Your task to perform on an android device: Turn on the flashlight Image 0: 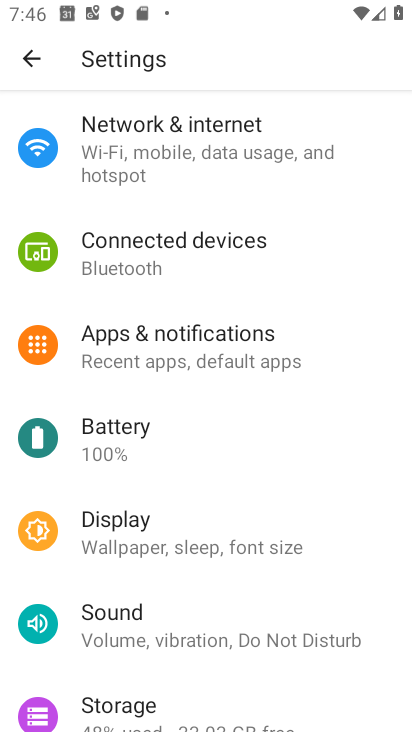
Step 0: click (30, 57)
Your task to perform on an android device: Turn on the flashlight Image 1: 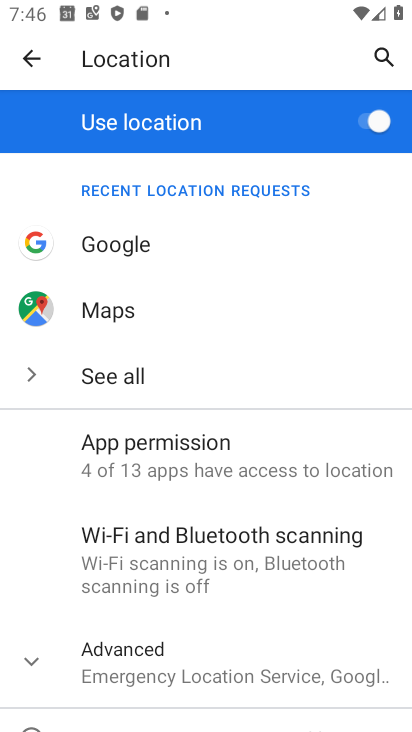
Step 1: press home button
Your task to perform on an android device: Turn on the flashlight Image 2: 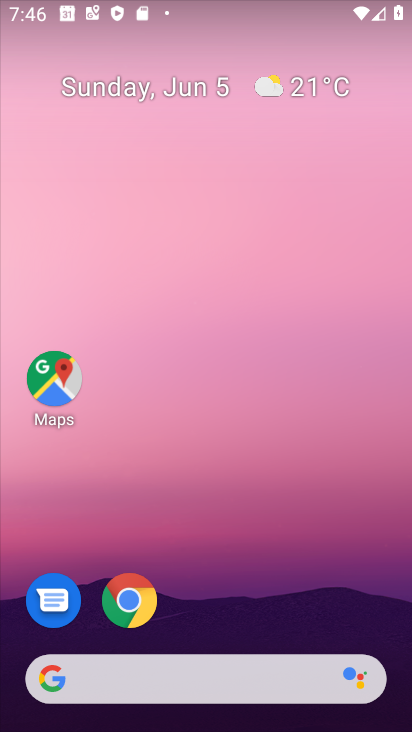
Step 2: drag from (236, 547) to (233, 13)
Your task to perform on an android device: Turn on the flashlight Image 3: 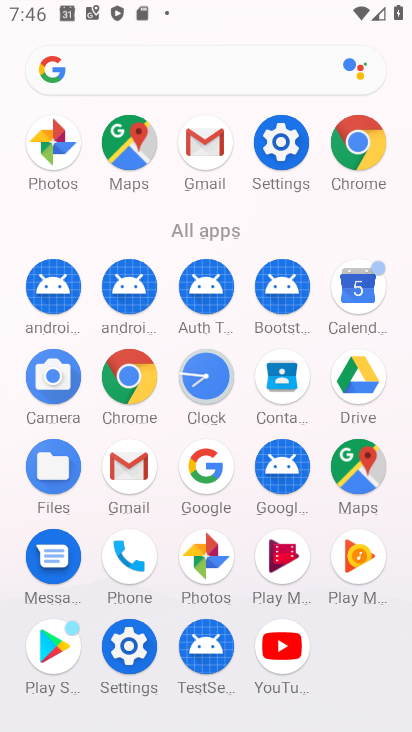
Step 3: click (285, 135)
Your task to perform on an android device: Turn on the flashlight Image 4: 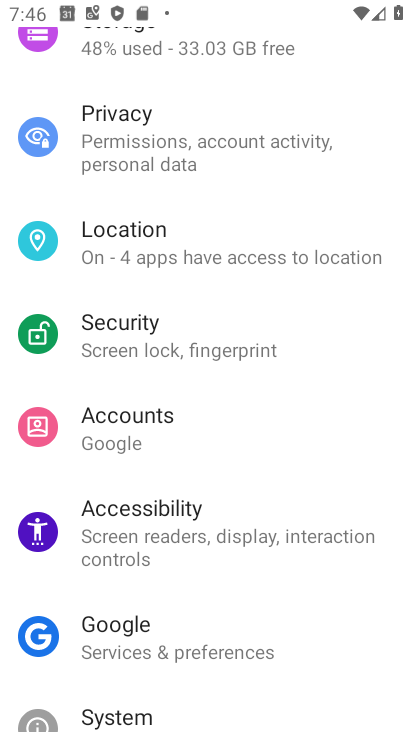
Step 4: drag from (262, 262) to (238, 567)
Your task to perform on an android device: Turn on the flashlight Image 5: 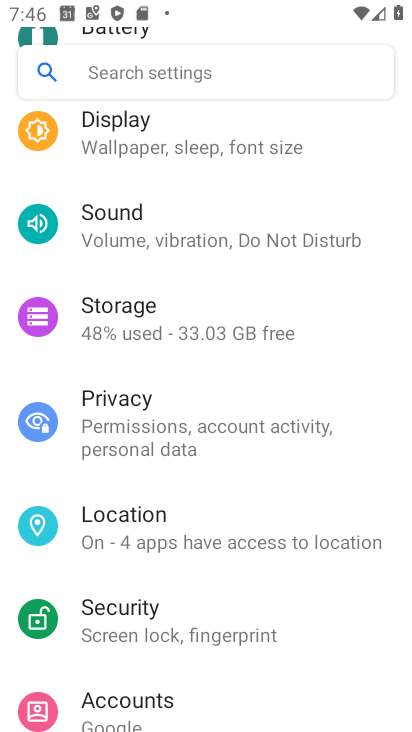
Step 5: drag from (238, 172) to (204, 581)
Your task to perform on an android device: Turn on the flashlight Image 6: 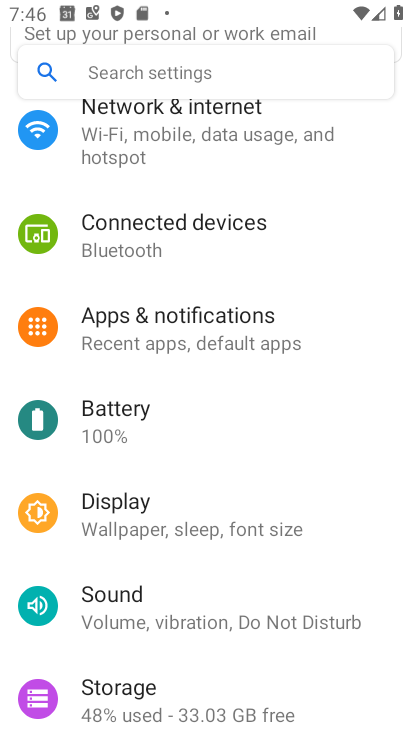
Step 6: drag from (210, 180) to (177, 623)
Your task to perform on an android device: Turn on the flashlight Image 7: 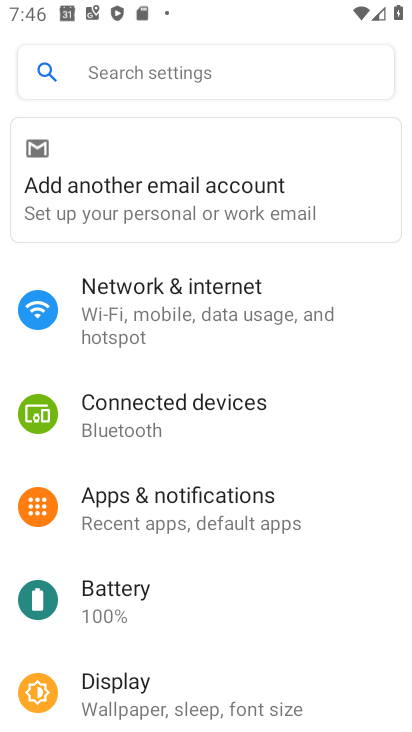
Step 7: click (245, 63)
Your task to perform on an android device: Turn on the flashlight Image 8: 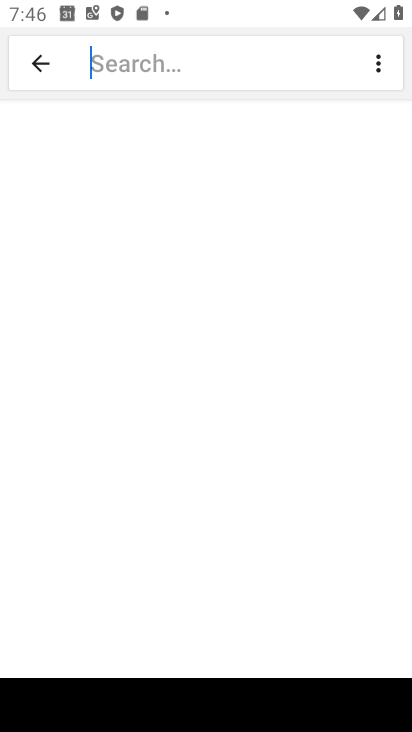
Step 8: type "Flashlight"
Your task to perform on an android device: Turn on the flashlight Image 9: 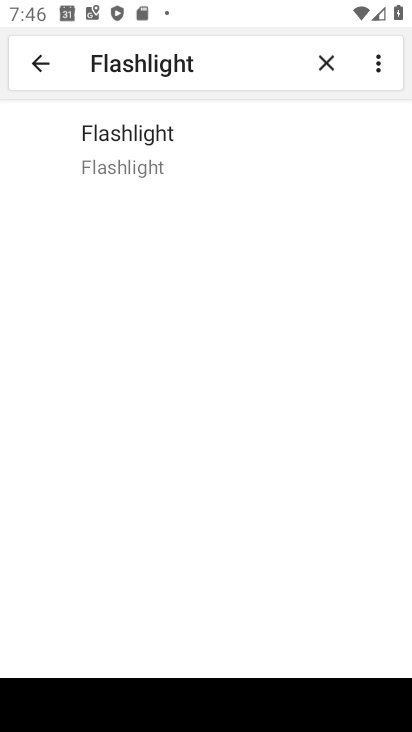
Step 9: click (153, 151)
Your task to perform on an android device: Turn on the flashlight Image 10: 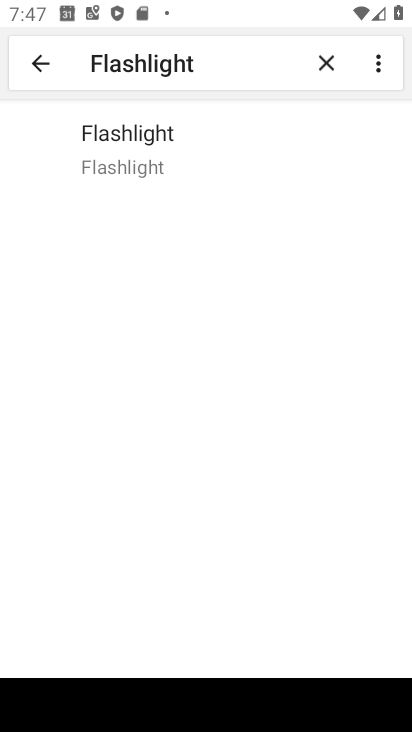
Step 10: click (153, 151)
Your task to perform on an android device: Turn on the flashlight Image 11: 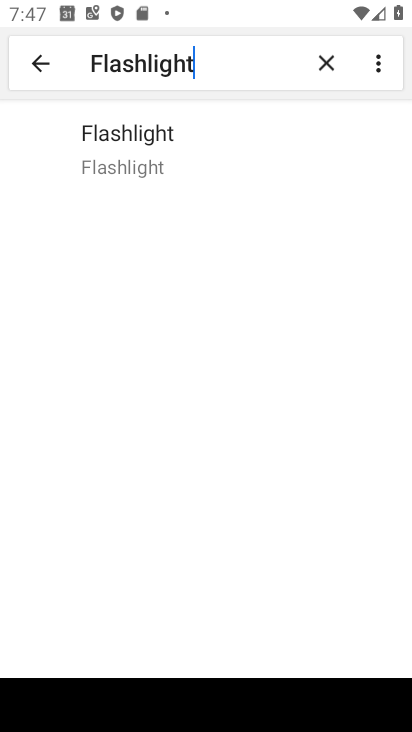
Step 11: task complete